Your task to perform on an android device: Open internet settings Image 0: 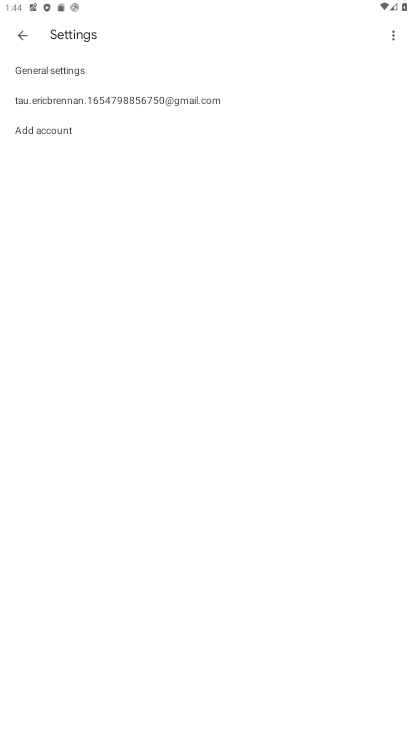
Step 0: press home button
Your task to perform on an android device: Open internet settings Image 1: 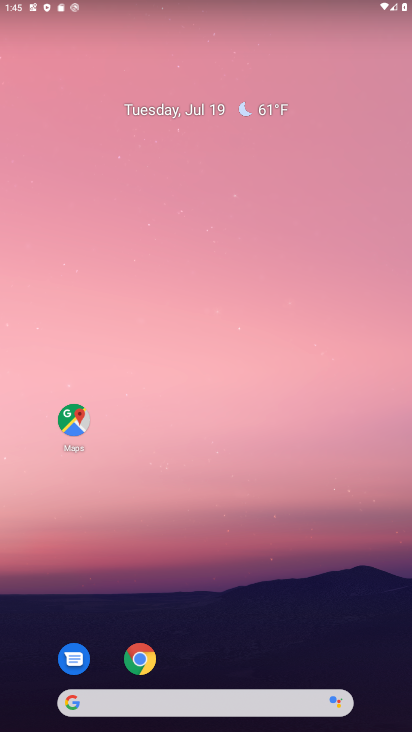
Step 1: drag from (365, 631) to (287, 112)
Your task to perform on an android device: Open internet settings Image 2: 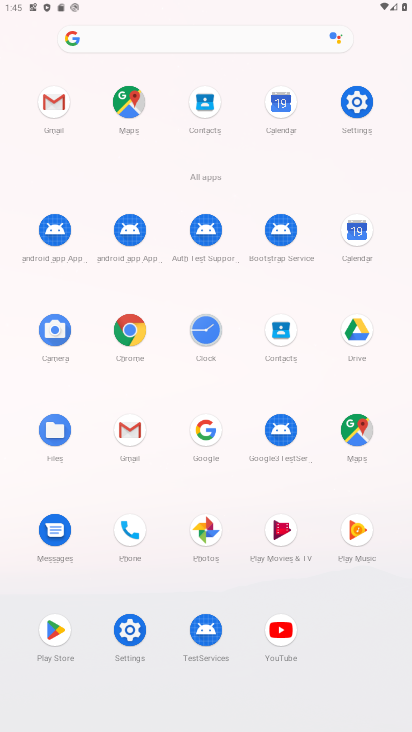
Step 2: click (356, 105)
Your task to perform on an android device: Open internet settings Image 3: 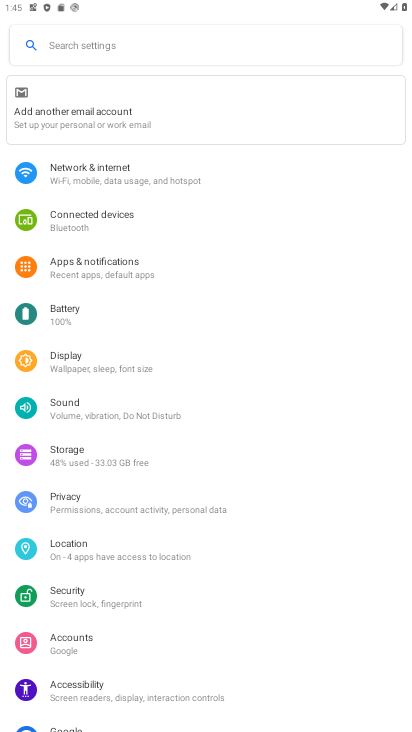
Step 3: click (151, 176)
Your task to perform on an android device: Open internet settings Image 4: 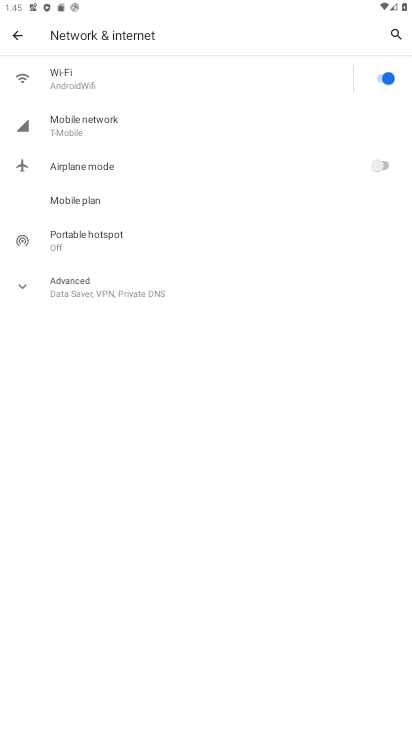
Step 4: task complete